Your task to perform on an android device: What's the weather going to be tomorrow? Image 0: 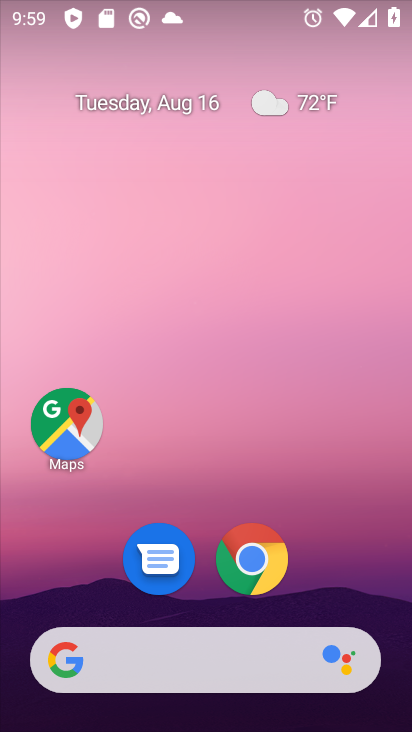
Step 0: drag from (180, 684) to (239, 117)
Your task to perform on an android device: What's the weather going to be tomorrow? Image 1: 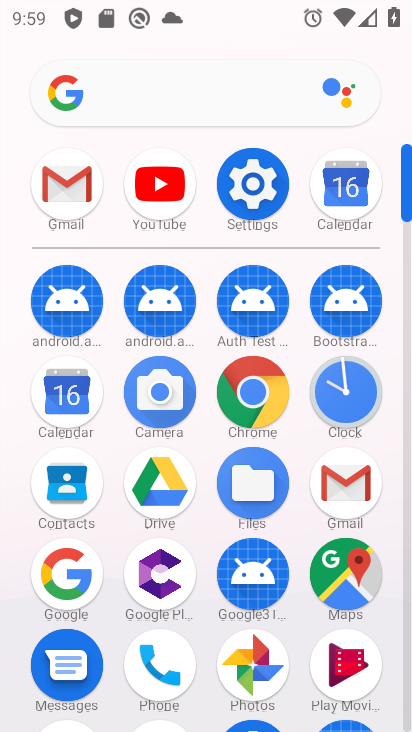
Step 1: click (63, 576)
Your task to perform on an android device: What's the weather going to be tomorrow? Image 2: 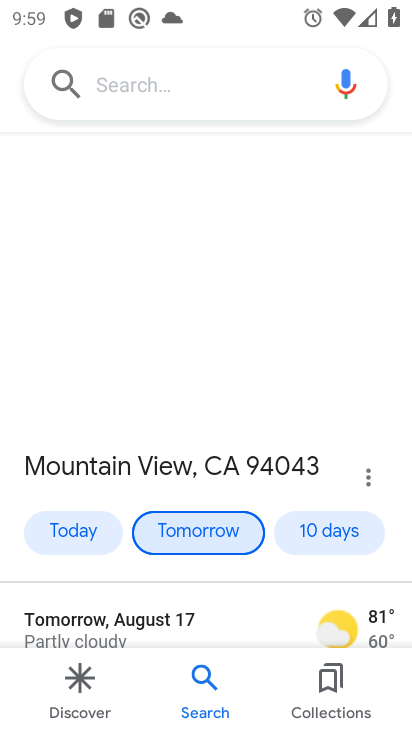
Step 2: click (229, 104)
Your task to perform on an android device: What's the weather going to be tomorrow? Image 3: 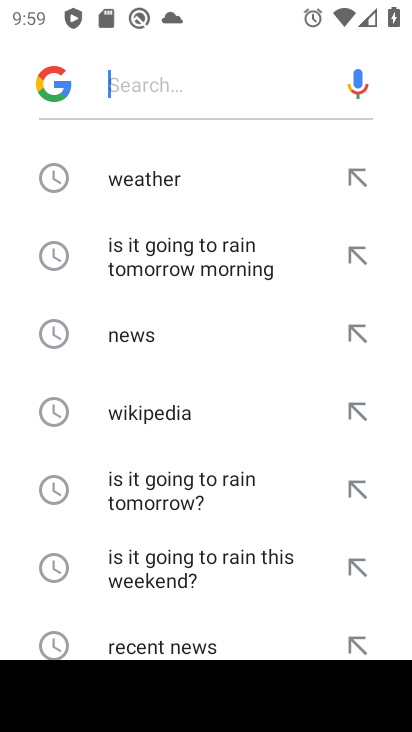
Step 3: type "What's the weather going to be tomorrow?"
Your task to perform on an android device: What's the weather going to be tomorrow? Image 4: 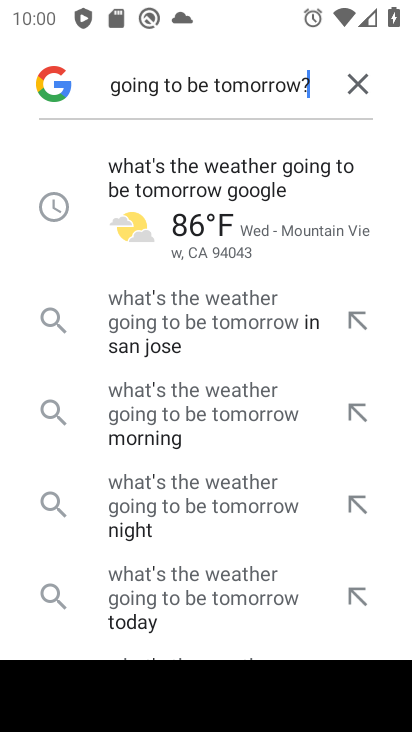
Step 4: click (215, 177)
Your task to perform on an android device: What's the weather going to be tomorrow? Image 5: 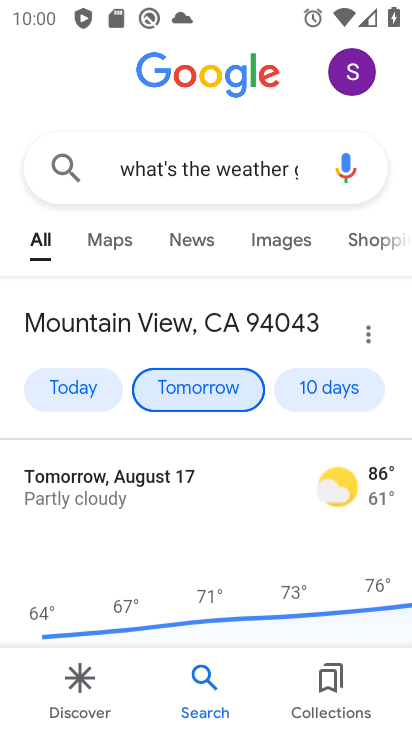
Step 5: task complete